Your task to perform on an android device: Go to display settings Image 0: 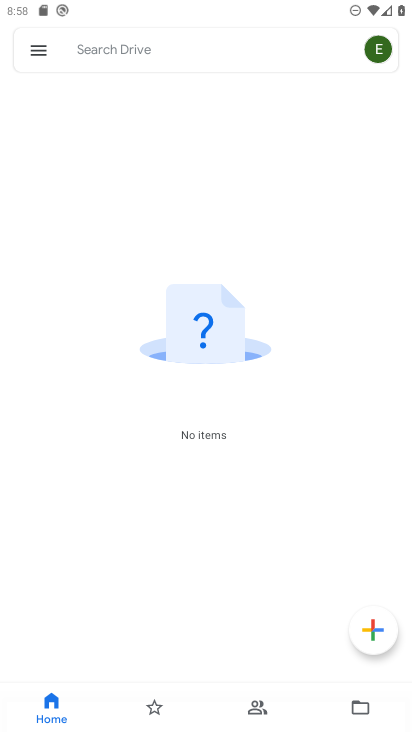
Step 0: press home button
Your task to perform on an android device: Go to display settings Image 1: 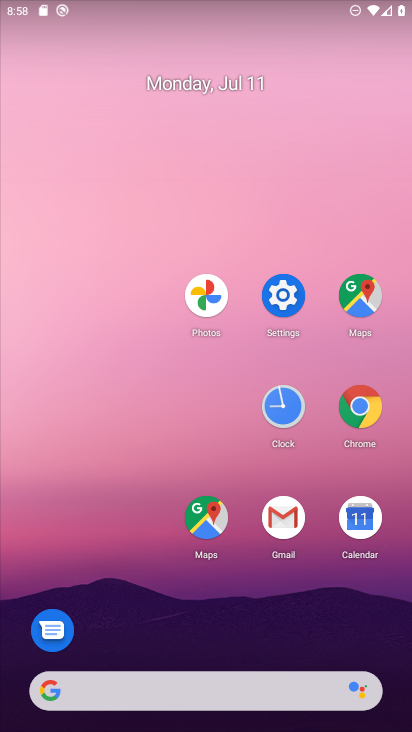
Step 1: click (290, 290)
Your task to perform on an android device: Go to display settings Image 2: 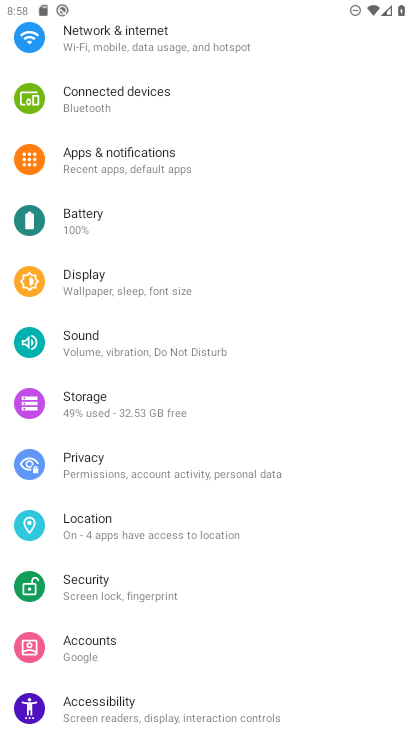
Step 2: click (222, 291)
Your task to perform on an android device: Go to display settings Image 3: 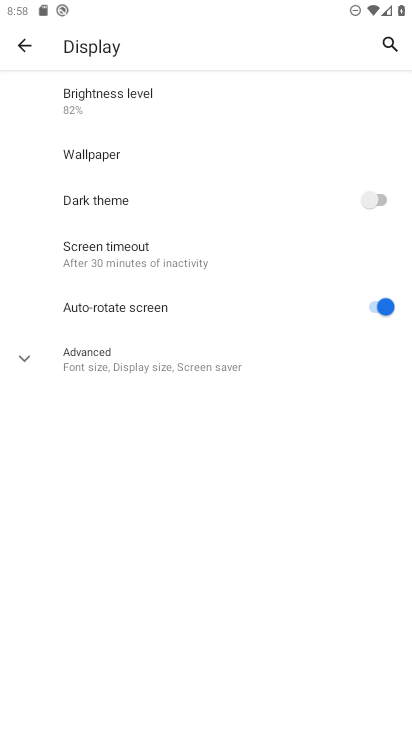
Step 3: task complete